Your task to perform on an android device: Go to settings Image 0: 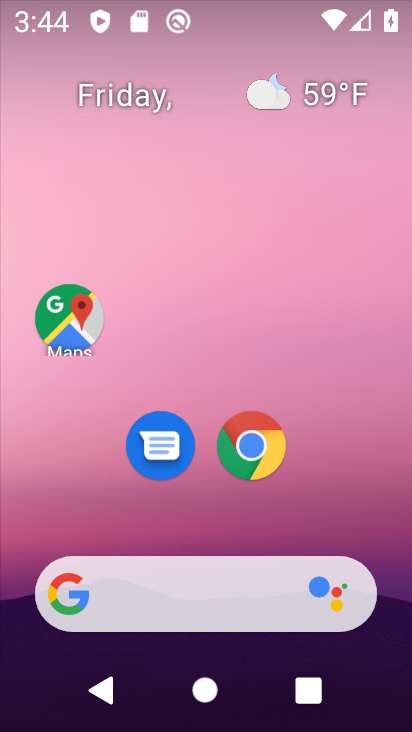
Step 0: drag from (395, 522) to (355, 150)
Your task to perform on an android device: Go to settings Image 1: 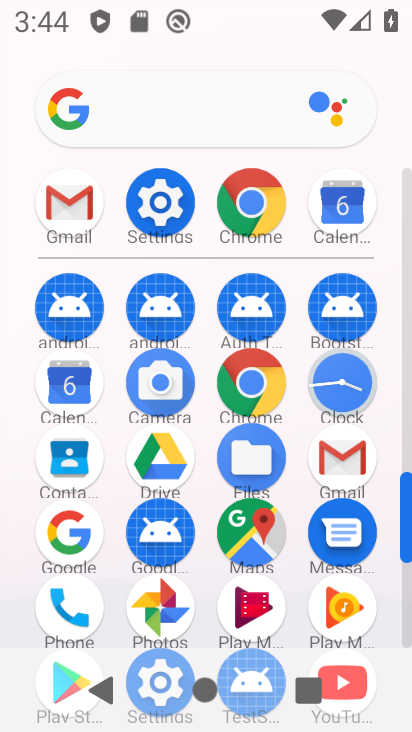
Step 1: click (405, 618)
Your task to perform on an android device: Go to settings Image 2: 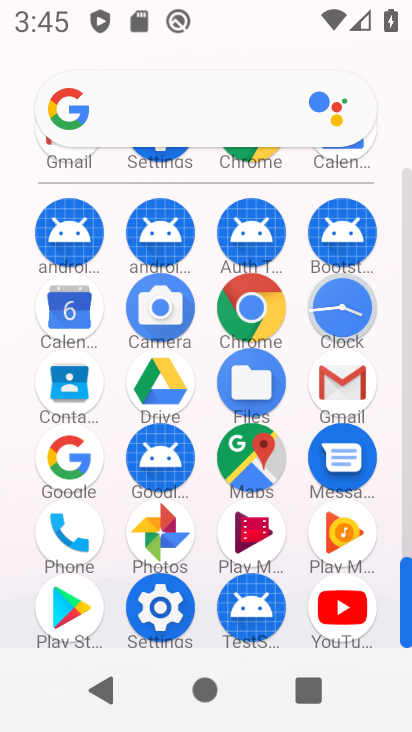
Step 2: click (158, 601)
Your task to perform on an android device: Go to settings Image 3: 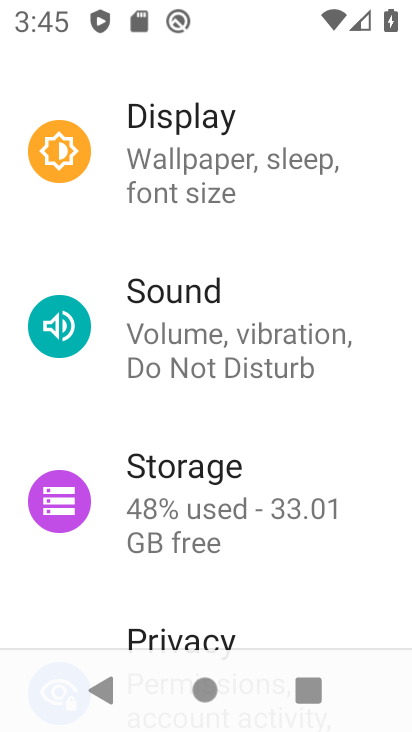
Step 3: task complete